Your task to perform on an android device: delete location history Image 0: 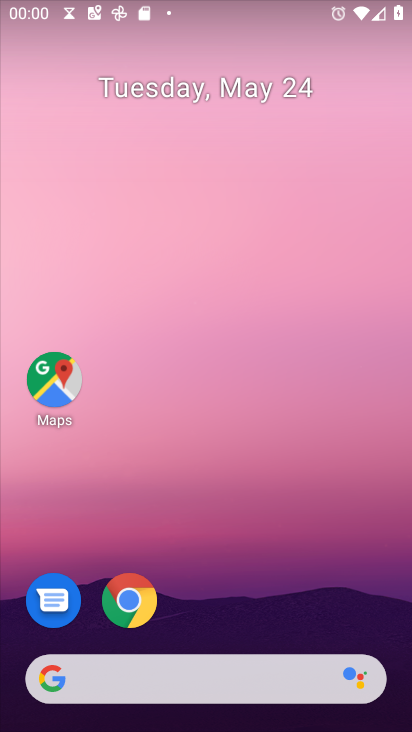
Step 0: drag from (240, 730) to (233, 79)
Your task to perform on an android device: delete location history Image 1: 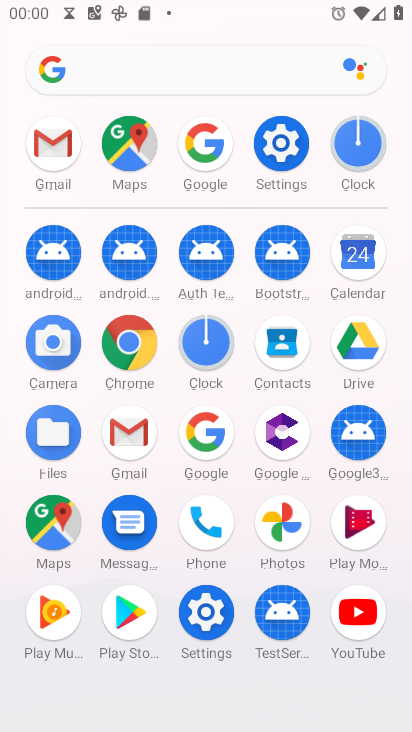
Step 1: click (55, 528)
Your task to perform on an android device: delete location history Image 2: 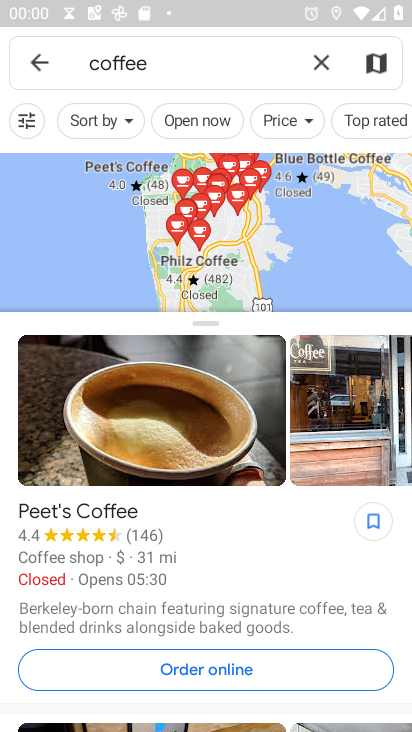
Step 2: click (35, 58)
Your task to perform on an android device: delete location history Image 3: 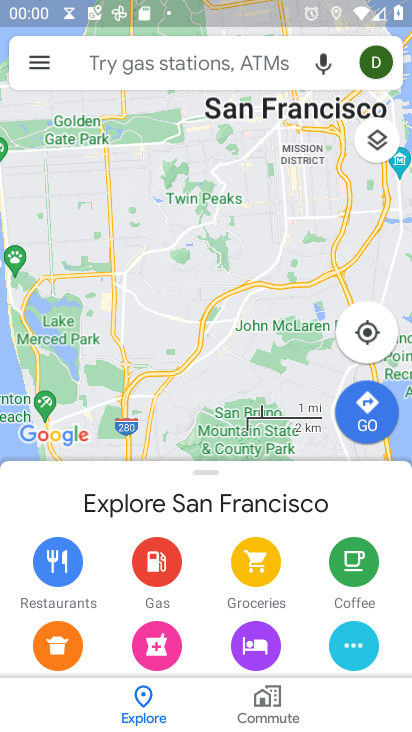
Step 3: click (41, 63)
Your task to perform on an android device: delete location history Image 4: 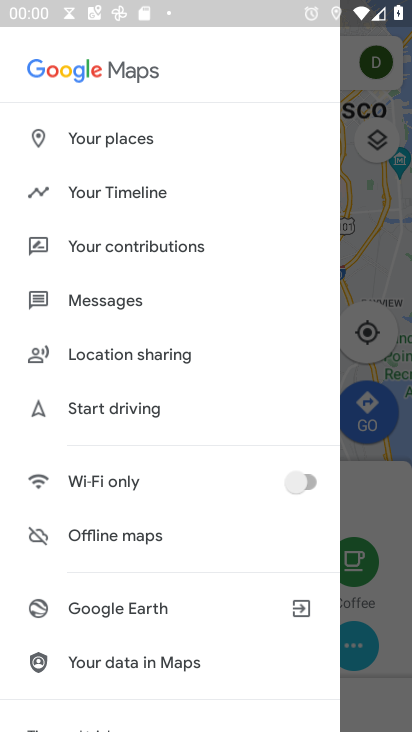
Step 4: drag from (133, 593) to (133, 244)
Your task to perform on an android device: delete location history Image 5: 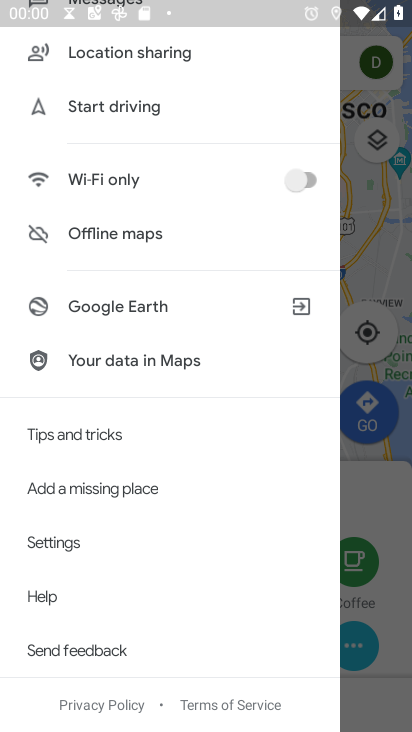
Step 5: drag from (132, 591) to (108, 317)
Your task to perform on an android device: delete location history Image 6: 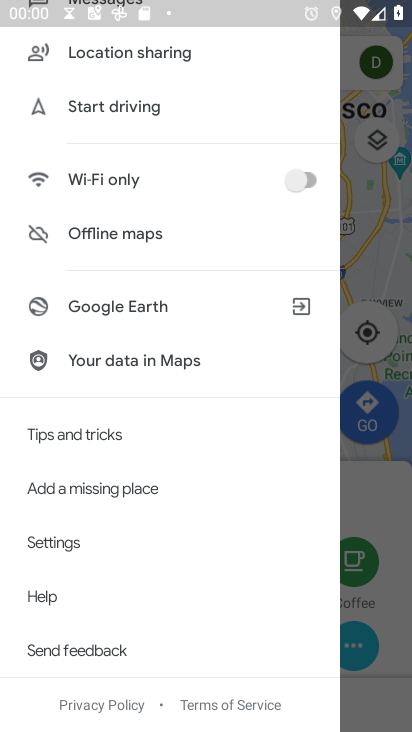
Step 6: drag from (169, 153) to (209, 612)
Your task to perform on an android device: delete location history Image 7: 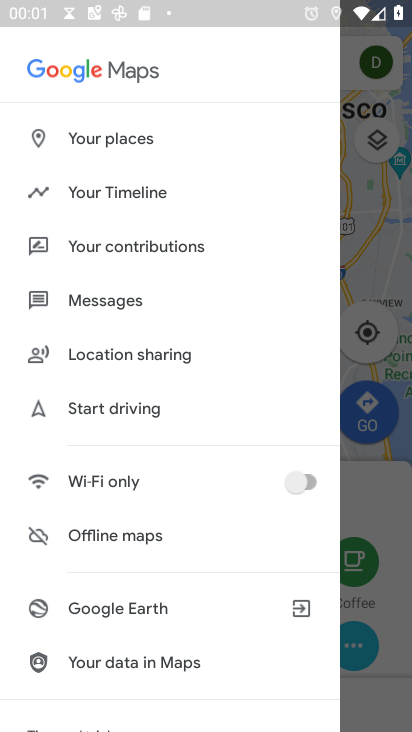
Step 7: click (115, 192)
Your task to perform on an android device: delete location history Image 8: 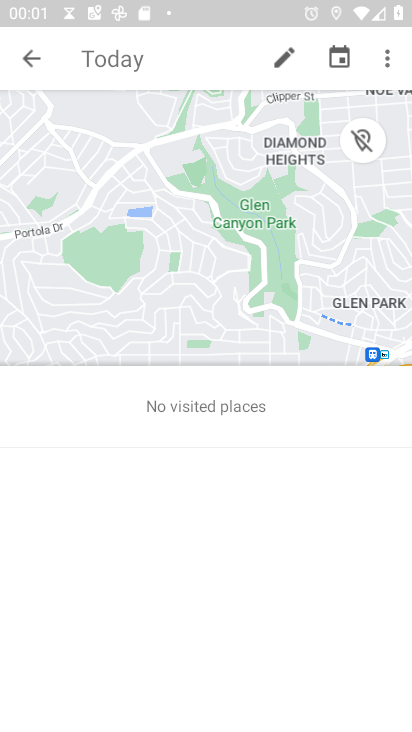
Step 8: click (386, 59)
Your task to perform on an android device: delete location history Image 9: 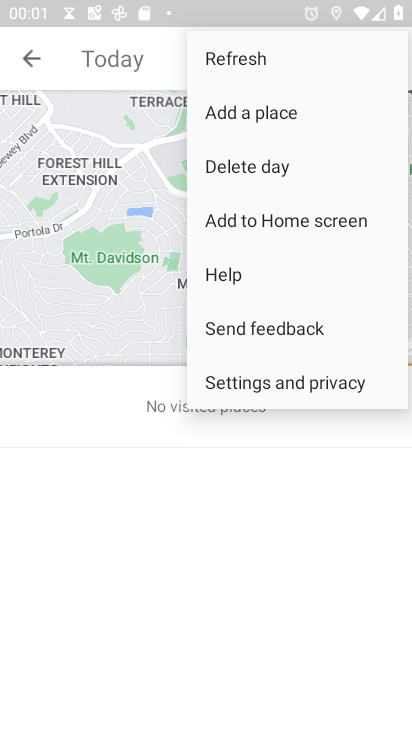
Step 9: click (260, 370)
Your task to perform on an android device: delete location history Image 10: 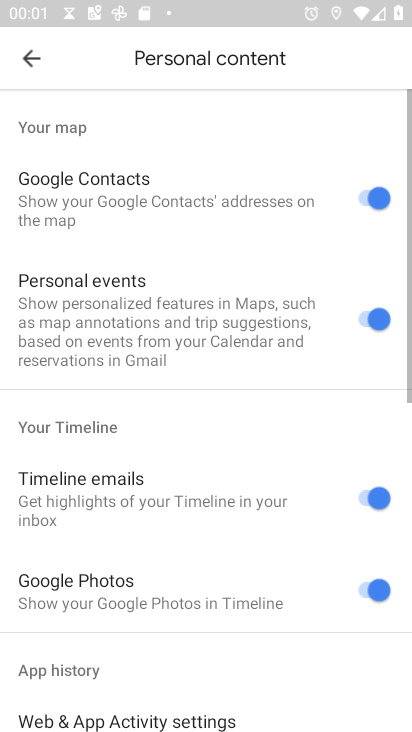
Step 10: drag from (174, 669) to (203, 222)
Your task to perform on an android device: delete location history Image 11: 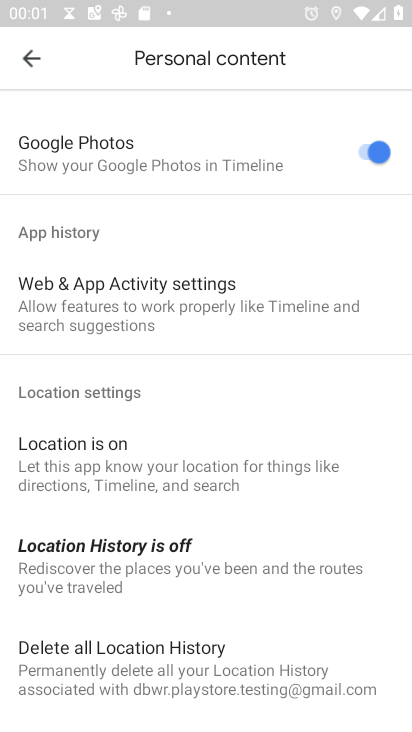
Step 11: click (130, 656)
Your task to perform on an android device: delete location history Image 12: 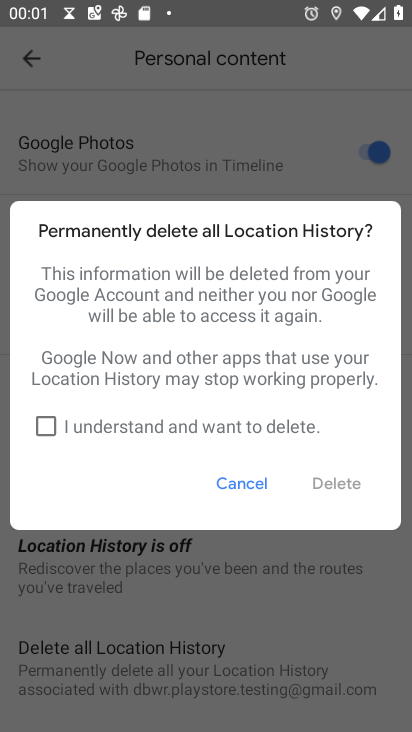
Step 12: click (41, 425)
Your task to perform on an android device: delete location history Image 13: 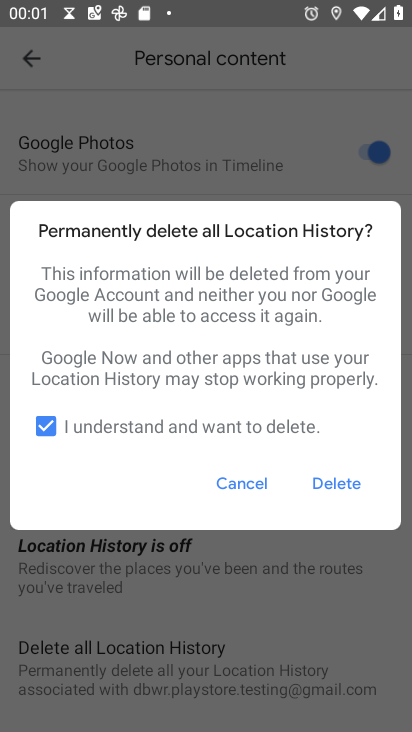
Step 13: click (348, 482)
Your task to perform on an android device: delete location history Image 14: 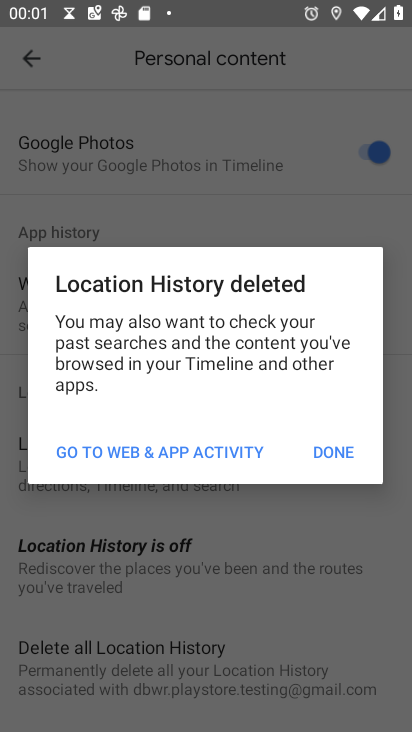
Step 14: click (334, 448)
Your task to perform on an android device: delete location history Image 15: 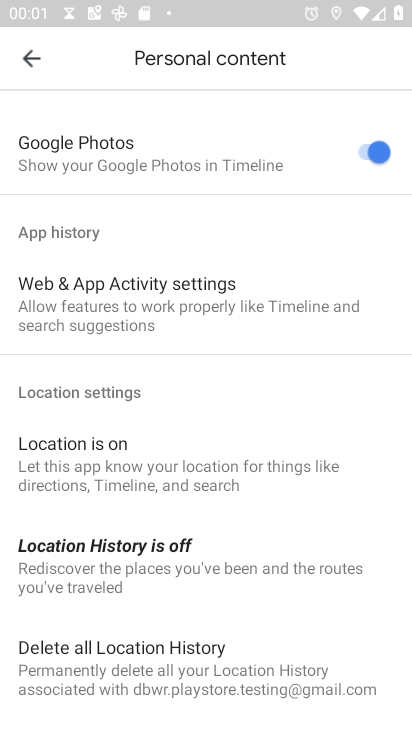
Step 15: task complete